Your task to perform on an android device: turn off location Image 0: 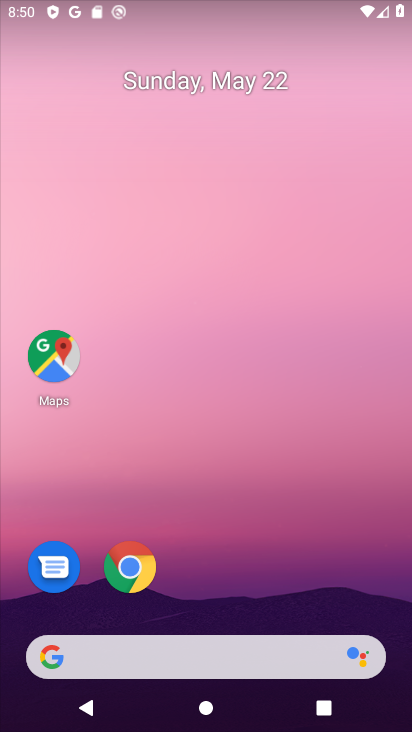
Step 0: drag from (231, 598) to (249, 36)
Your task to perform on an android device: turn off location Image 1: 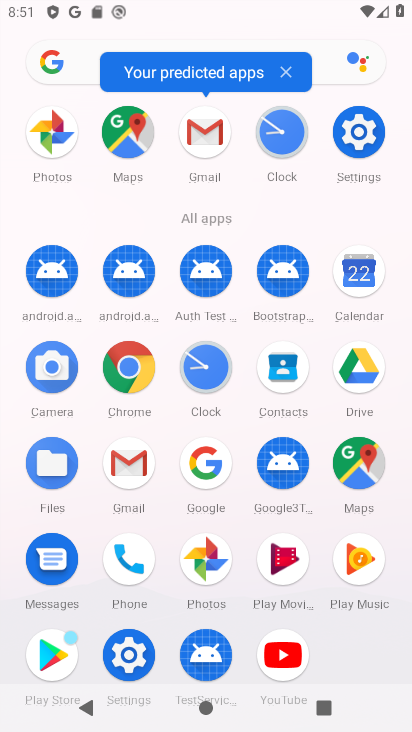
Step 1: click (365, 153)
Your task to perform on an android device: turn off location Image 2: 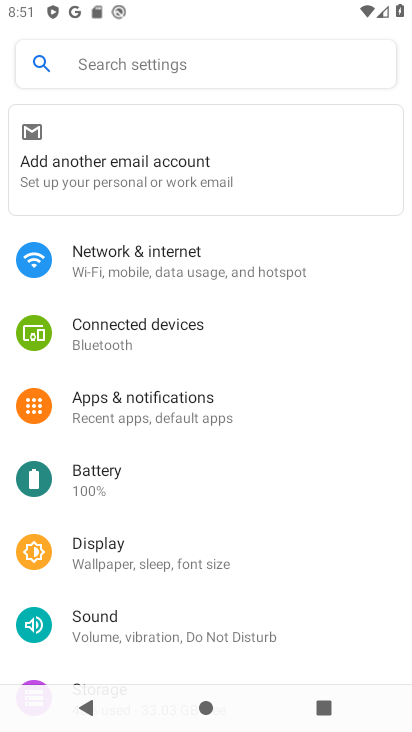
Step 2: drag from (181, 494) to (190, 253)
Your task to perform on an android device: turn off location Image 3: 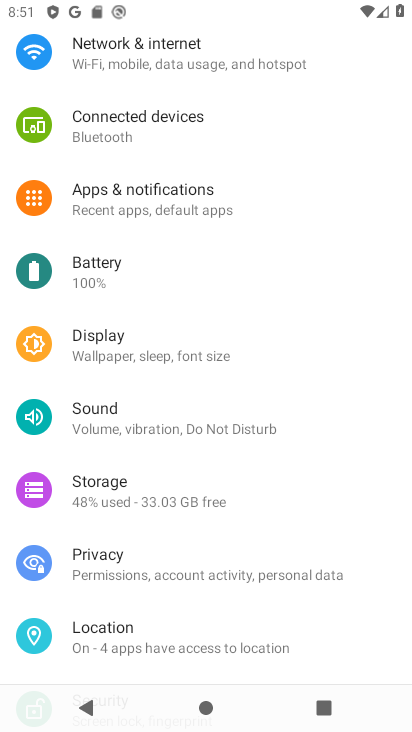
Step 3: click (127, 623)
Your task to perform on an android device: turn off location Image 4: 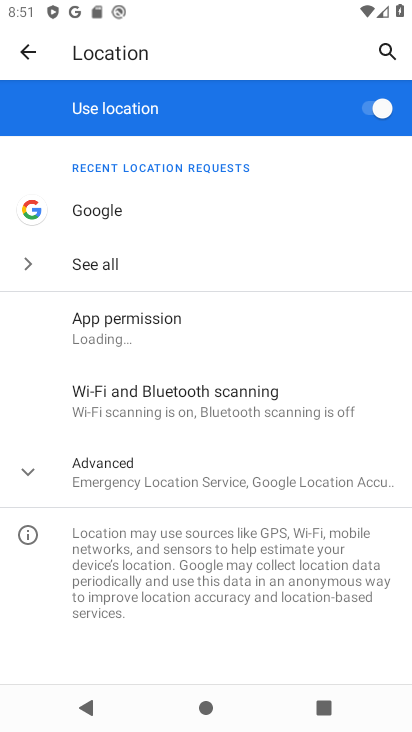
Step 4: click (359, 109)
Your task to perform on an android device: turn off location Image 5: 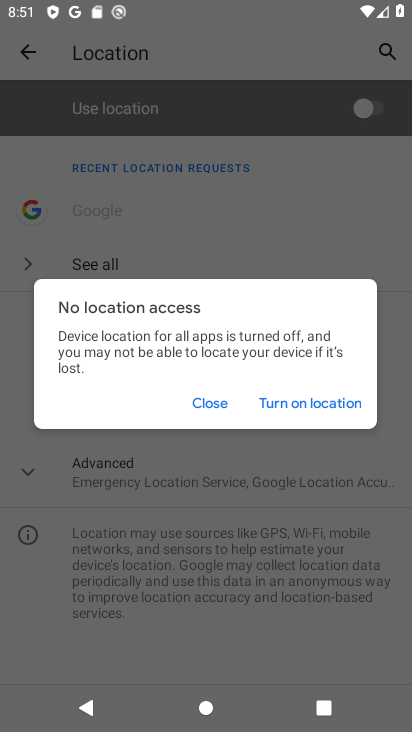
Step 5: click (217, 404)
Your task to perform on an android device: turn off location Image 6: 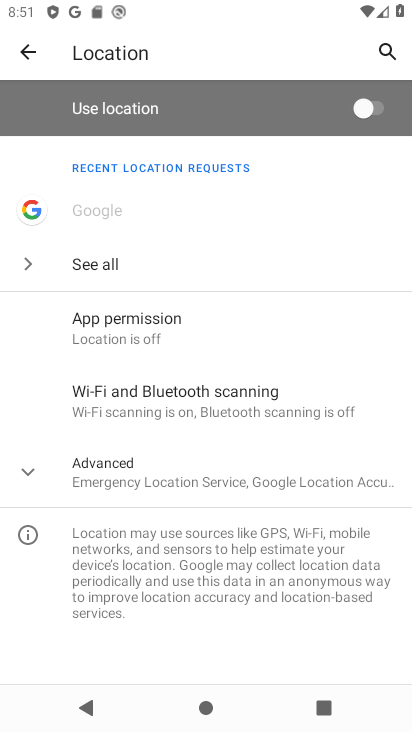
Step 6: task complete